Your task to perform on an android device: change alarm snooze length Image 0: 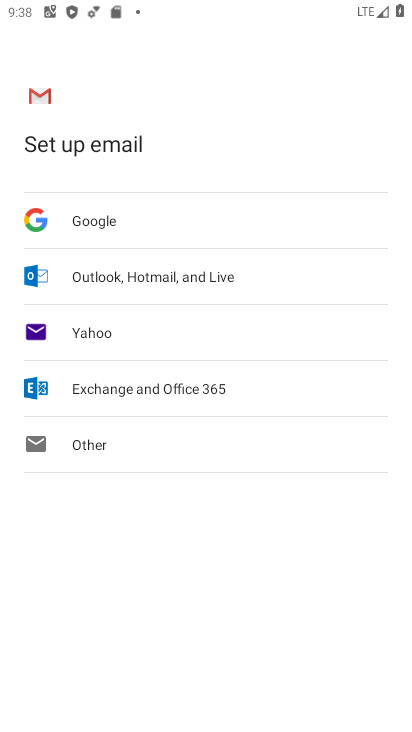
Step 0: press home button
Your task to perform on an android device: change alarm snooze length Image 1: 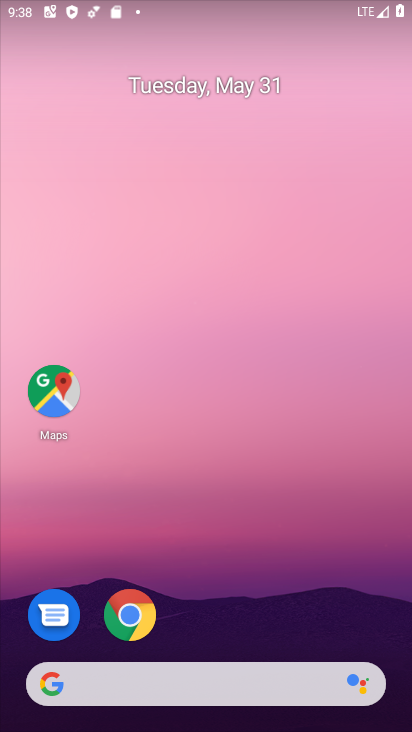
Step 1: drag from (326, 596) to (301, 183)
Your task to perform on an android device: change alarm snooze length Image 2: 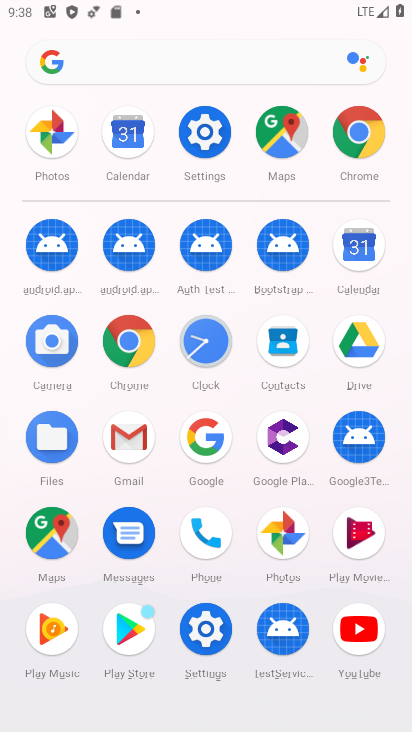
Step 2: click (215, 332)
Your task to perform on an android device: change alarm snooze length Image 3: 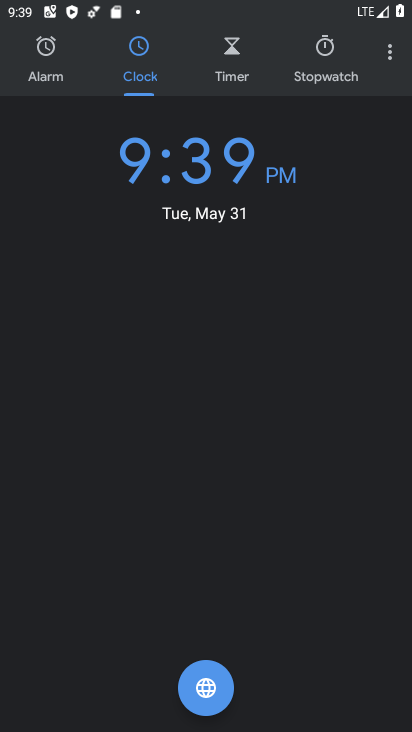
Step 3: click (391, 49)
Your task to perform on an android device: change alarm snooze length Image 4: 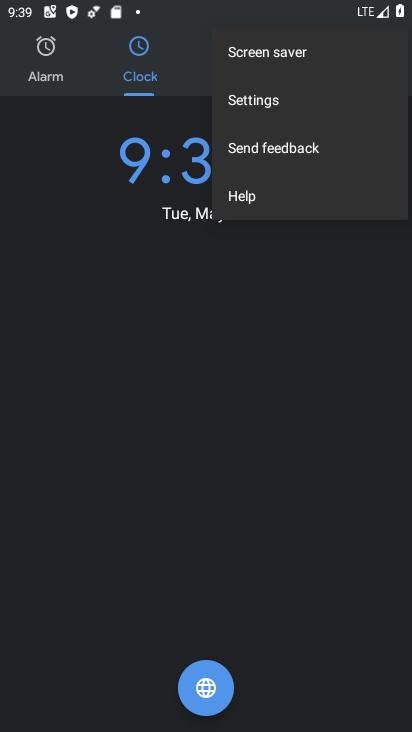
Step 4: click (277, 101)
Your task to perform on an android device: change alarm snooze length Image 5: 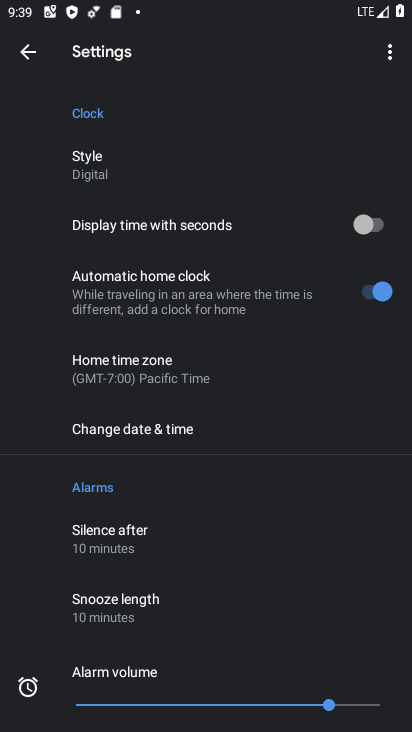
Step 5: click (102, 616)
Your task to perform on an android device: change alarm snooze length Image 6: 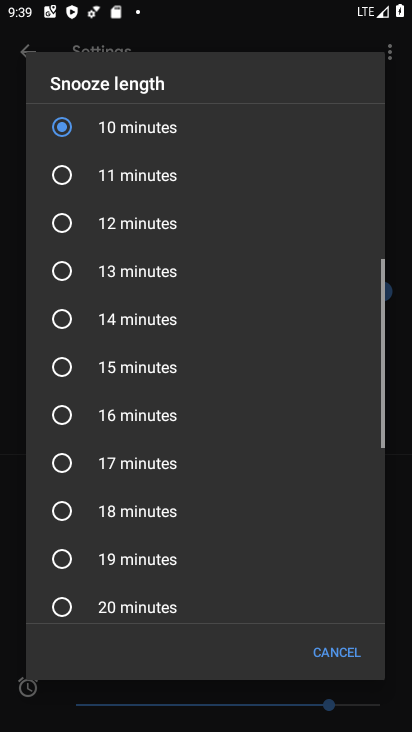
Step 6: click (128, 425)
Your task to perform on an android device: change alarm snooze length Image 7: 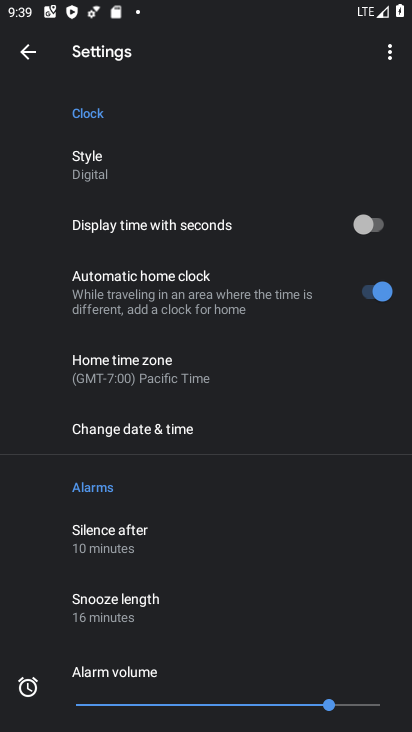
Step 7: task complete